Your task to perform on an android device: toggle data saver in the chrome app Image 0: 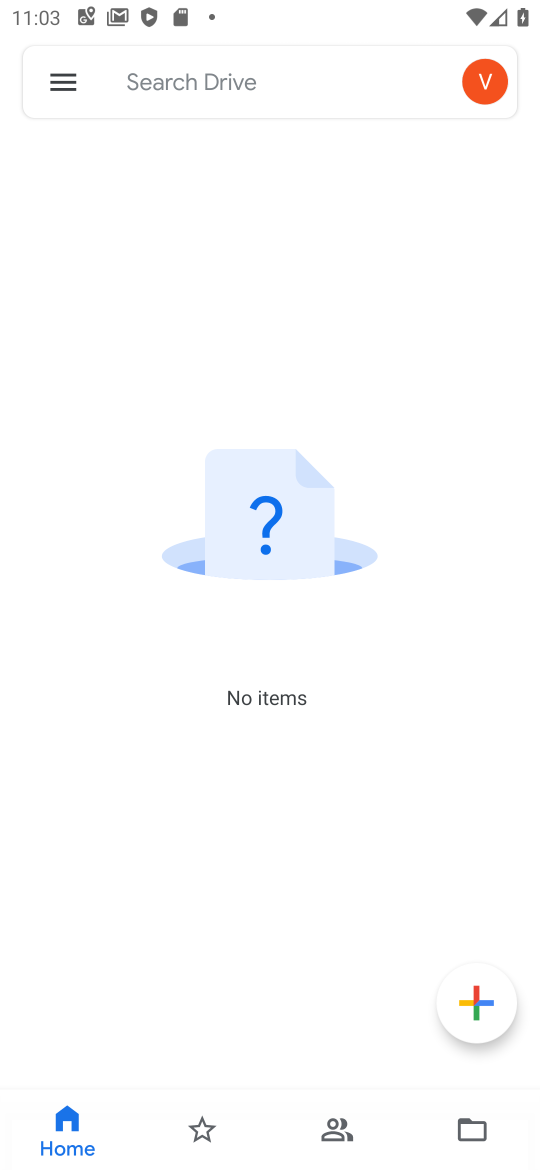
Step 0: press home button
Your task to perform on an android device: toggle data saver in the chrome app Image 1: 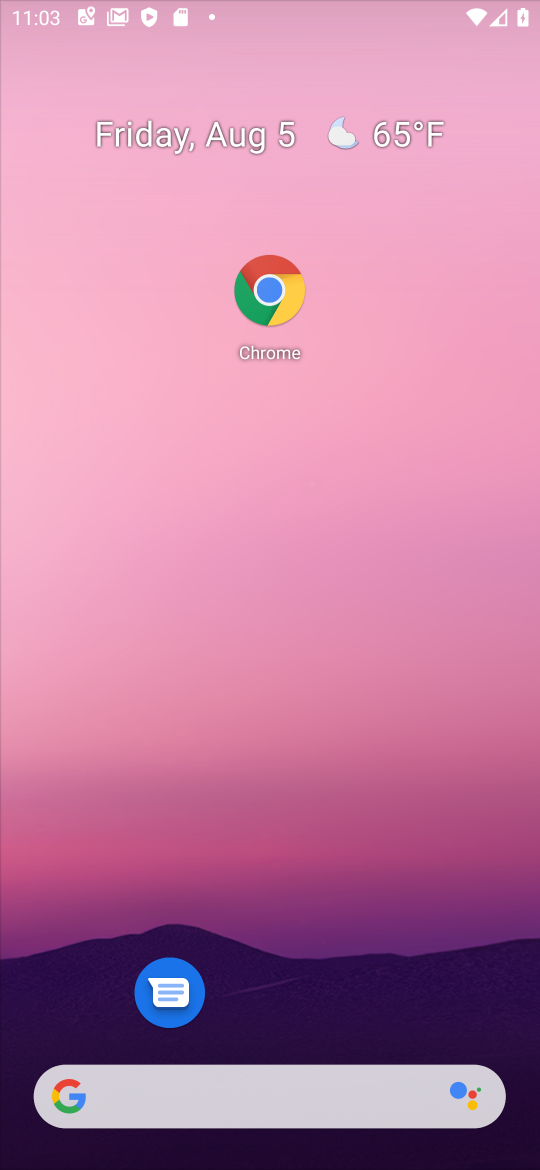
Step 1: drag from (391, 878) to (357, 135)
Your task to perform on an android device: toggle data saver in the chrome app Image 2: 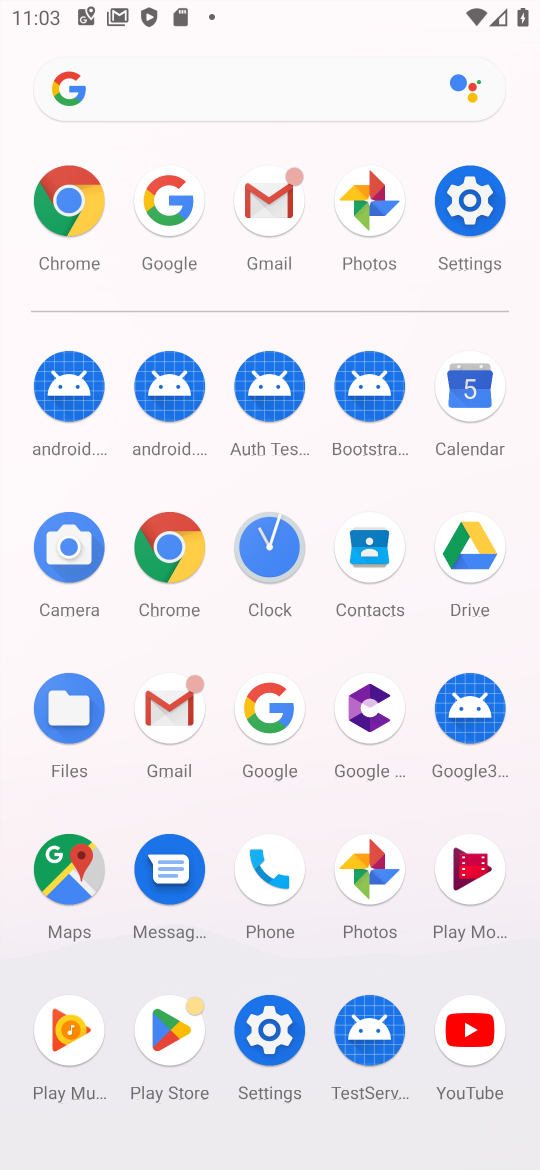
Step 2: click (82, 215)
Your task to perform on an android device: toggle data saver in the chrome app Image 3: 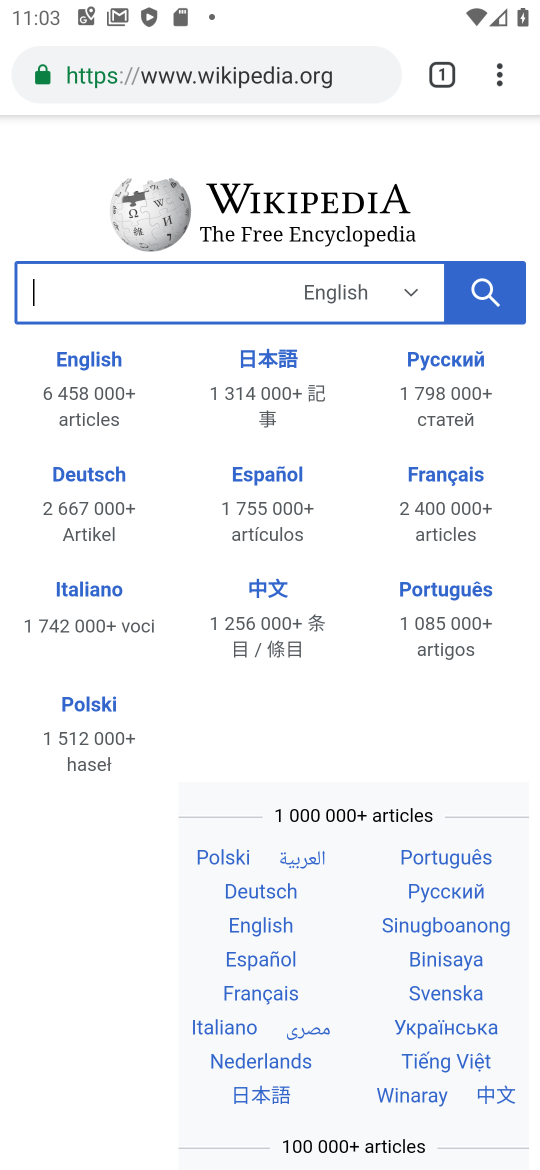
Step 3: drag from (475, 93) to (267, 916)
Your task to perform on an android device: toggle data saver in the chrome app Image 4: 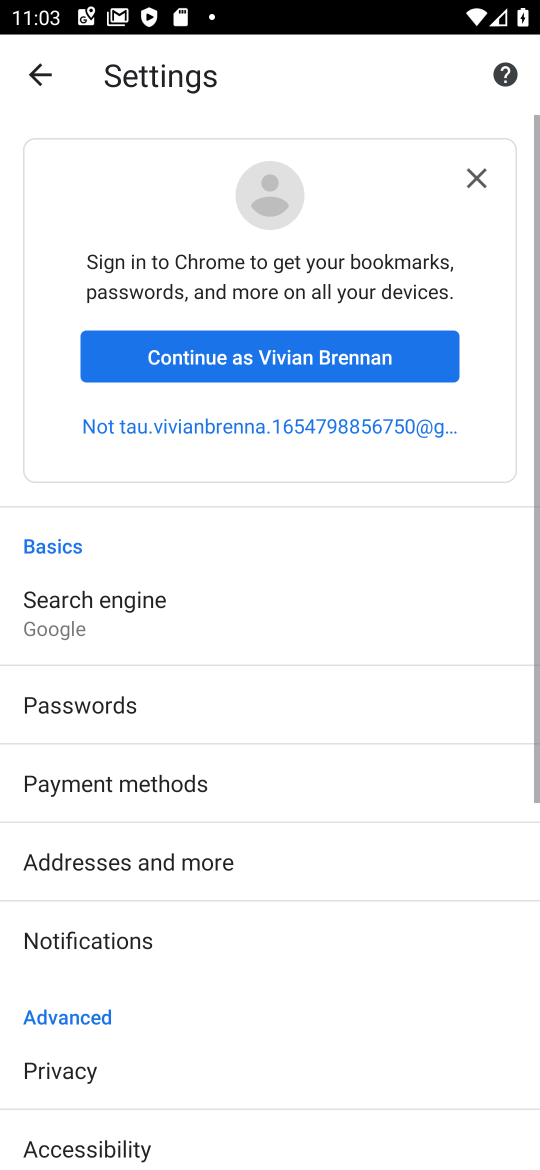
Step 4: drag from (247, 954) to (257, 250)
Your task to perform on an android device: toggle data saver in the chrome app Image 5: 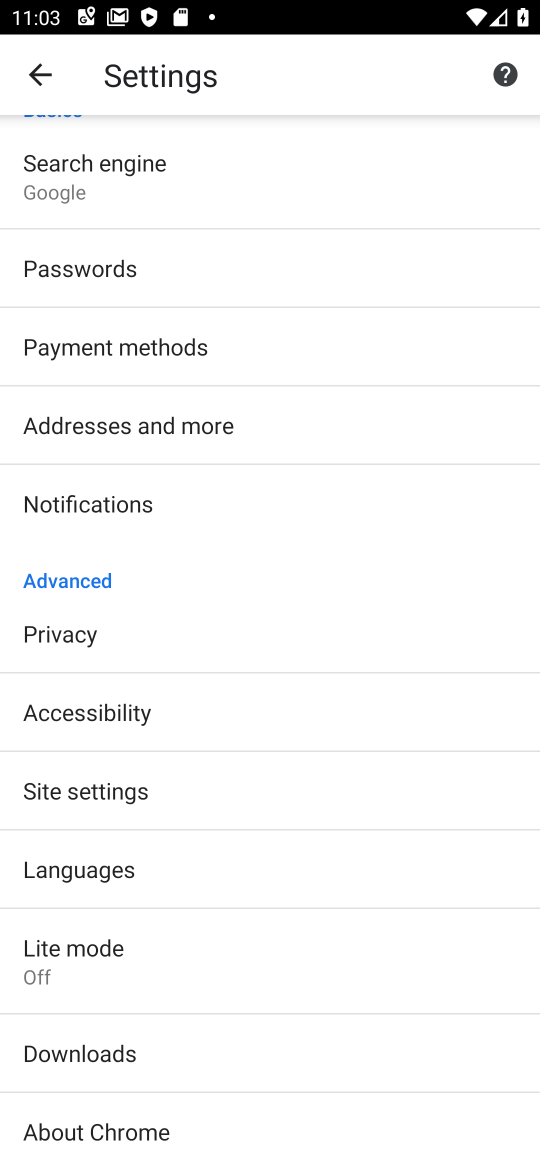
Step 5: click (102, 946)
Your task to perform on an android device: toggle data saver in the chrome app Image 6: 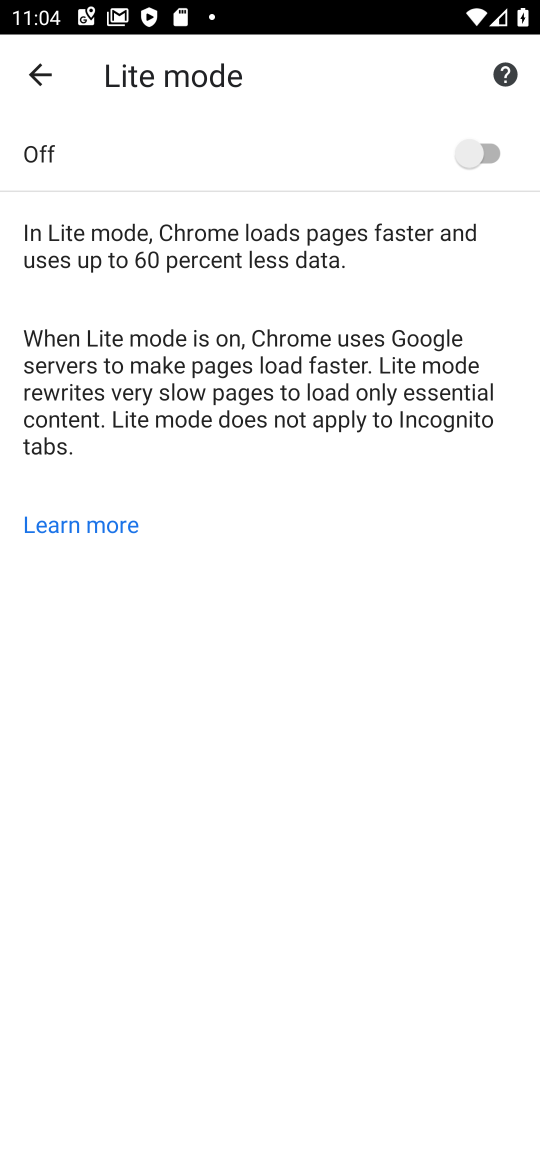
Step 6: click (471, 161)
Your task to perform on an android device: toggle data saver in the chrome app Image 7: 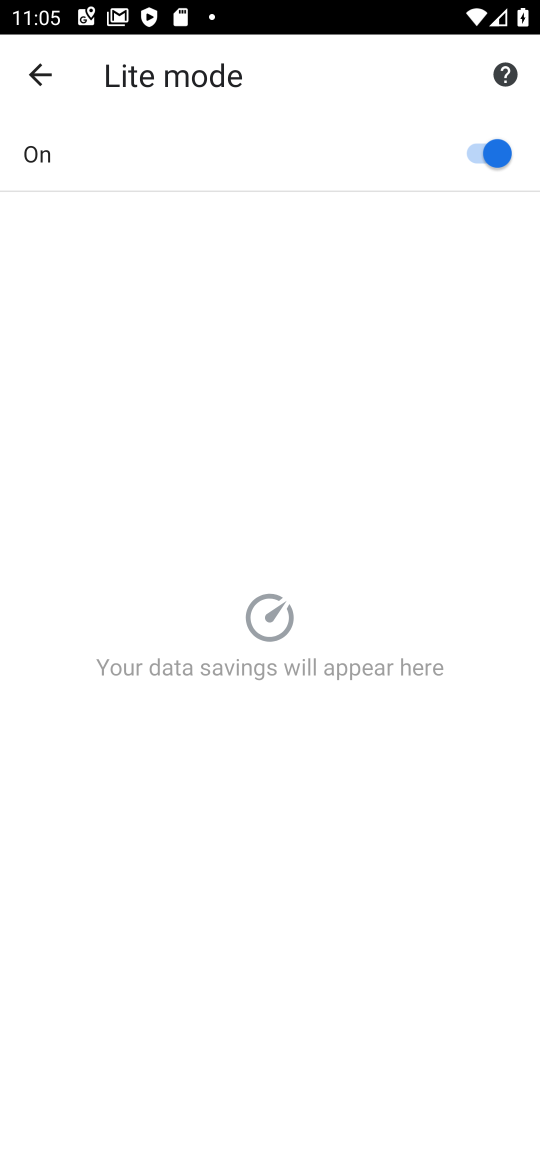
Step 7: click (484, 147)
Your task to perform on an android device: toggle data saver in the chrome app Image 8: 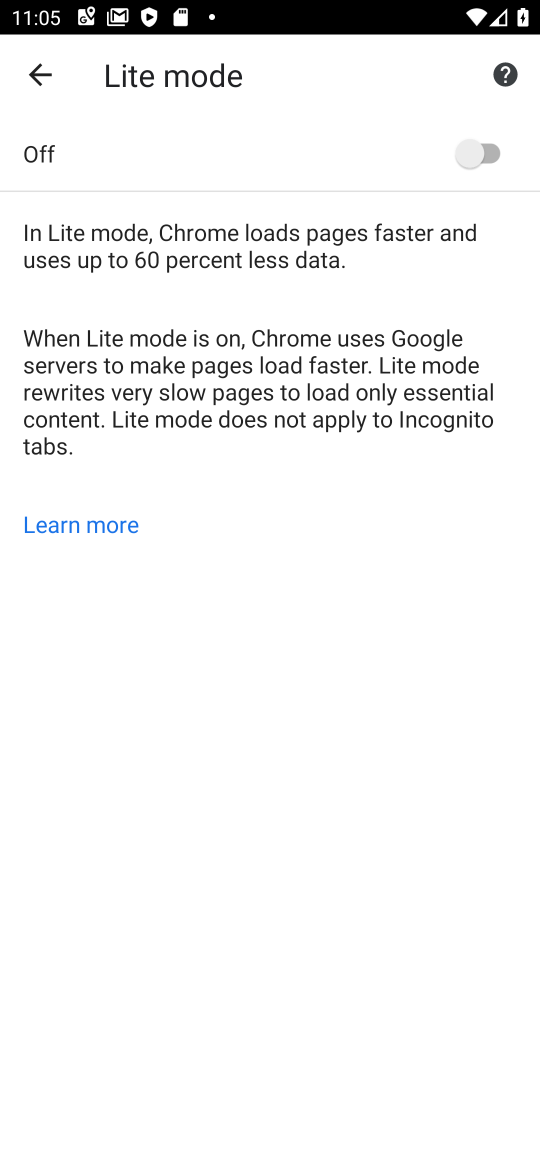
Step 8: task complete